Your task to perform on an android device: Go to accessibility settings Image 0: 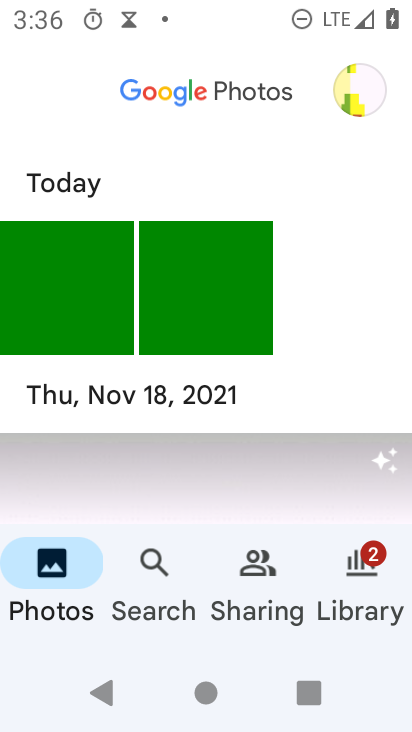
Step 0: press home button
Your task to perform on an android device: Go to accessibility settings Image 1: 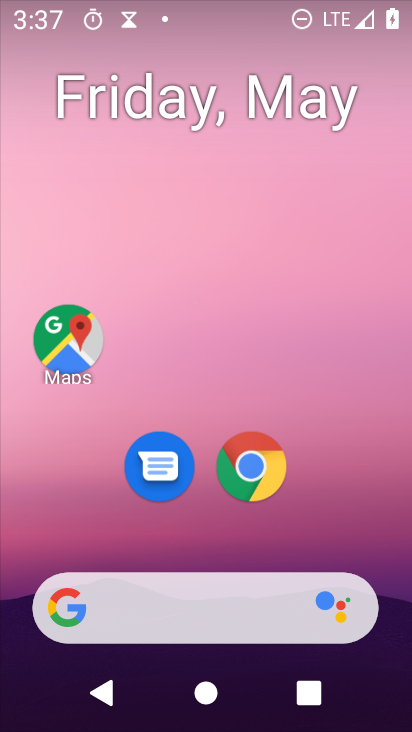
Step 1: drag from (332, 565) to (344, 25)
Your task to perform on an android device: Go to accessibility settings Image 2: 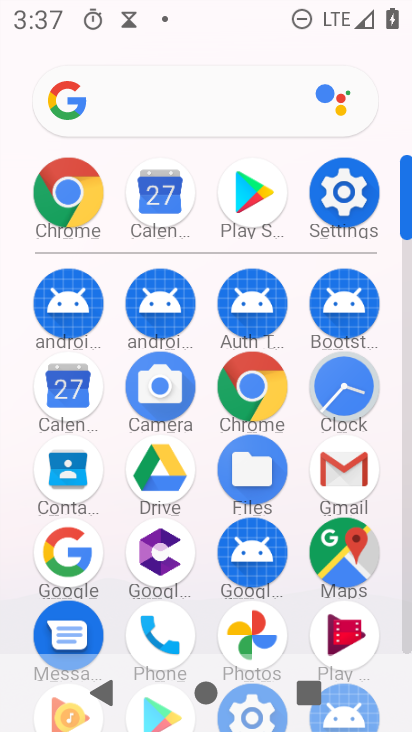
Step 2: click (340, 172)
Your task to perform on an android device: Go to accessibility settings Image 3: 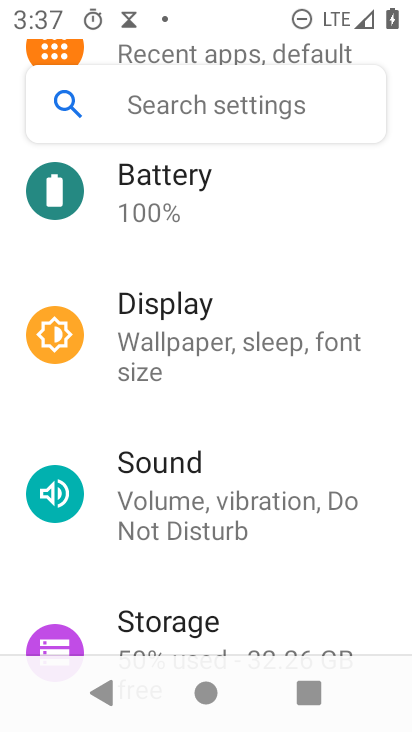
Step 3: drag from (212, 570) to (212, 230)
Your task to perform on an android device: Go to accessibility settings Image 4: 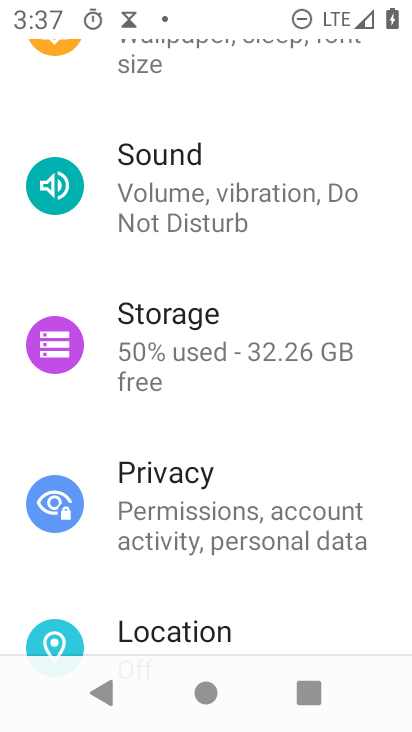
Step 4: drag from (216, 519) to (217, 209)
Your task to perform on an android device: Go to accessibility settings Image 5: 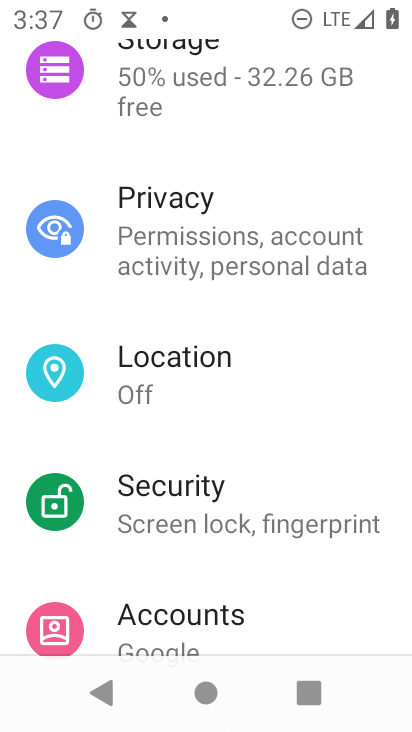
Step 5: drag from (223, 556) to (227, 212)
Your task to perform on an android device: Go to accessibility settings Image 6: 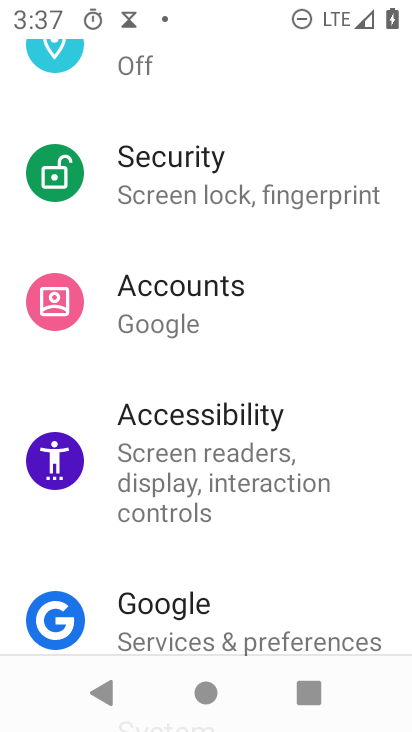
Step 6: click (195, 448)
Your task to perform on an android device: Go to accessibility settings Image 7: 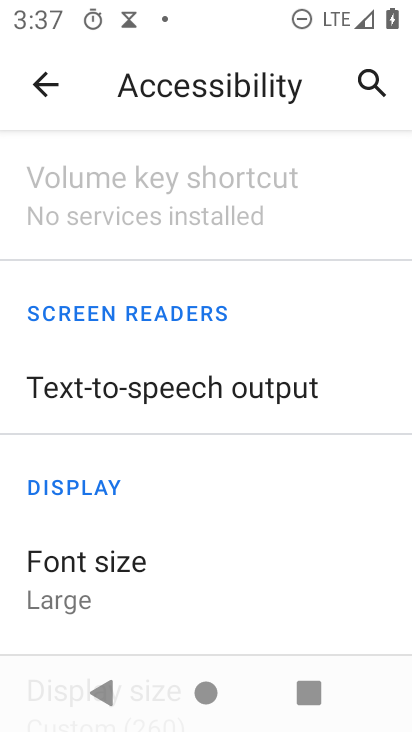
Step 7: task complete